Your task to perform on an android device: change notification settings in the gmail app Image 0: 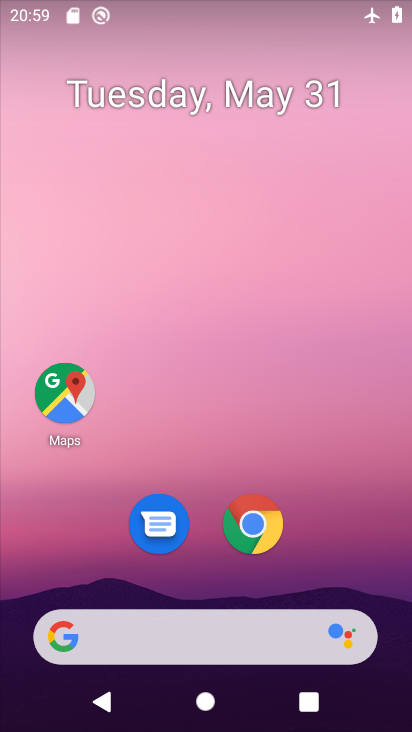
Step 0: drag from (329, 578) to (325, 0)
Your task to perform on an android device: change notification settings in the gmail app Image 1: 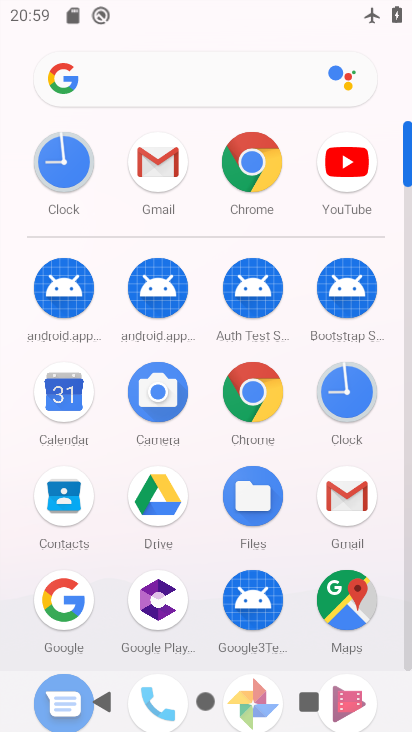
Step 1: click (161, 153)
Your task to perform on an android device: change notification settings in the gmail app Image 2: 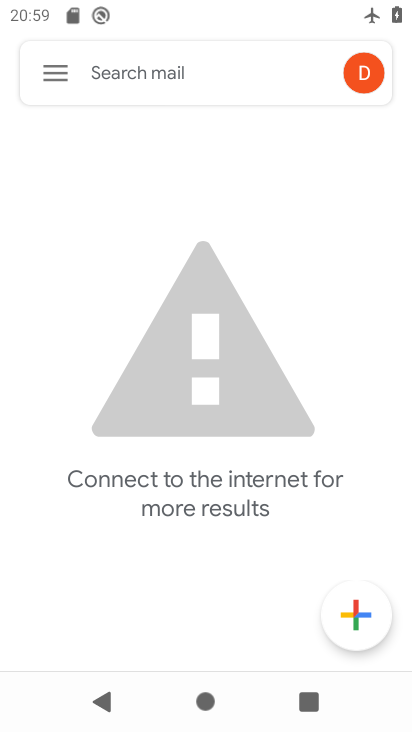
Step 2: click (52, 70)
Your task to perform on an android device: change notification settings in the gmail app Image 3: 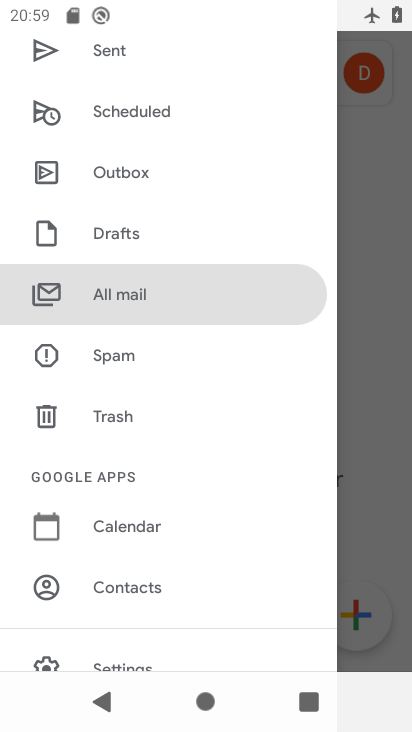
Step 3: drag from (185, 577) to (213, 325)
Your task to perform on an android device: change notification settings in the gmail app Image 4: 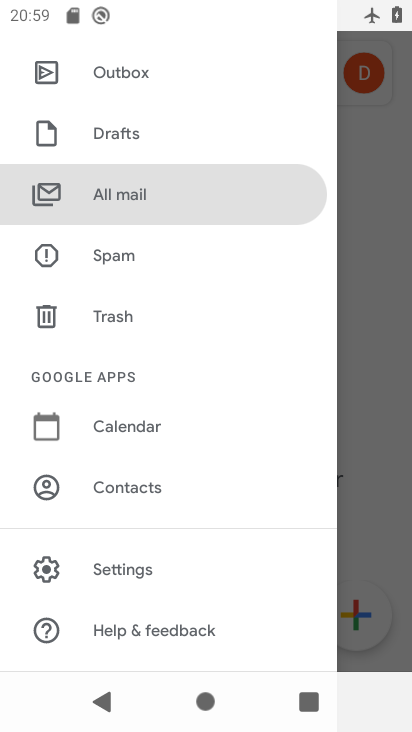
Step 4: click (155, 567)
Your task to perform on an android device: change notification settings in the gmail app Image 5: 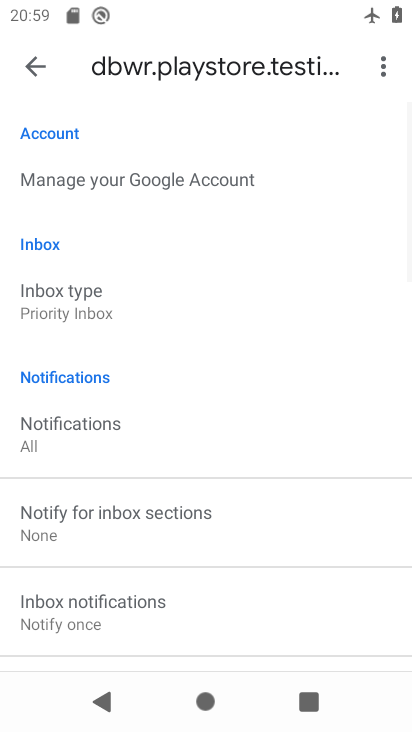
Step 5: drag from (227, 401) to (259, 123)
Your task to perform on an android device: change notification settings in the gmail app Image 6: 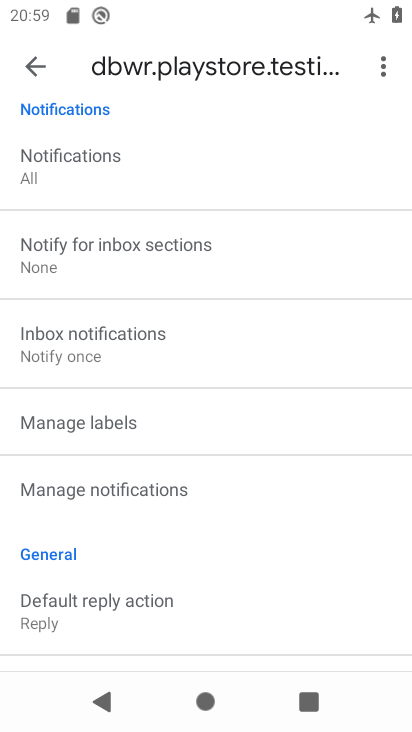
Step 6: click (258, 487)
Your task to perform on an android device: change notification settings in the gmail app Image 7: 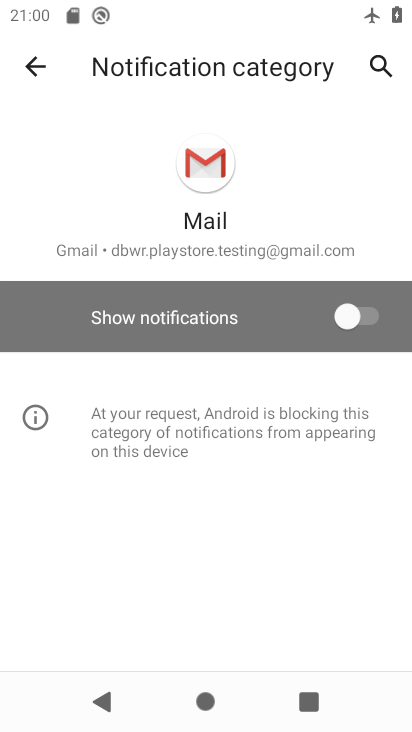
Step 7: click (361, 314)
Your task to perform on an android device: change notification settings in the gmail app Image 8: 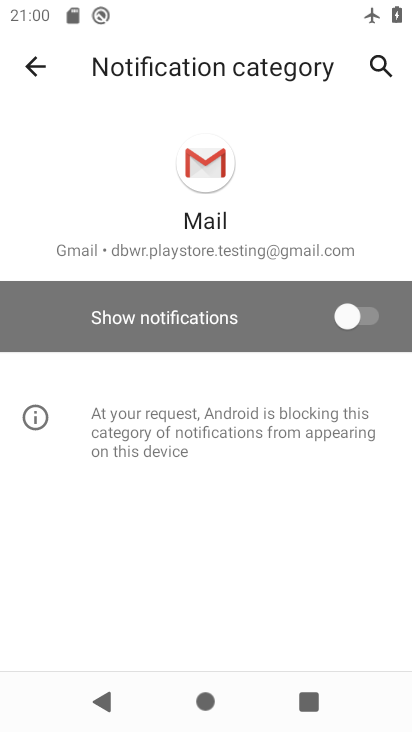
Step 8: click (365, 312)
Your task to perform on an android device: change notification settings in the gmail app Image 9: 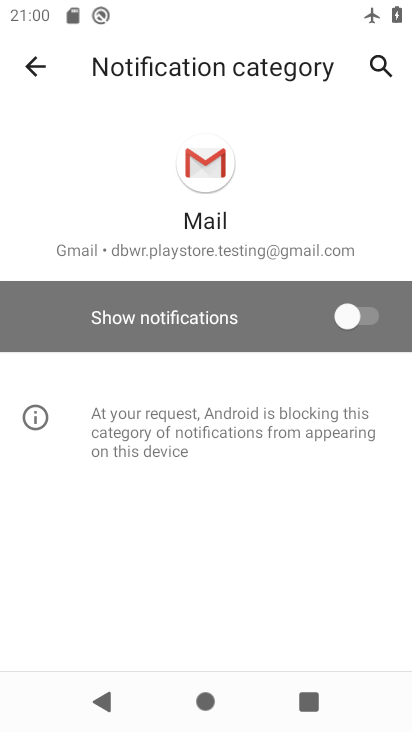
Step 9: click (38, 59)
Your task to perform on an android device: change notification settings in the gmail app Image 10: 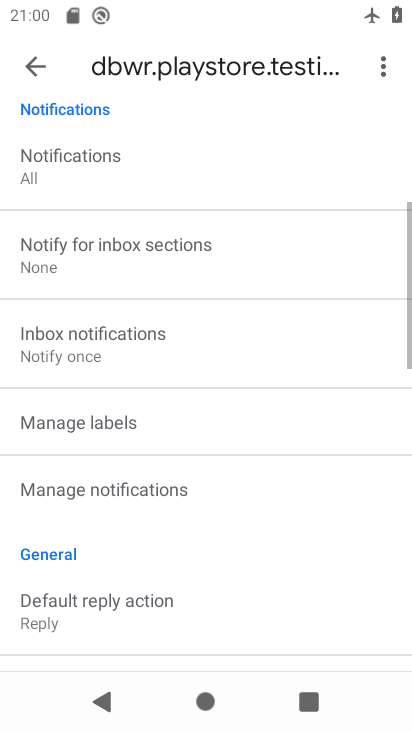
Step 10: click (38, 59)
Your task to perform on an android device: change notification settings in the gmail app Image 11: 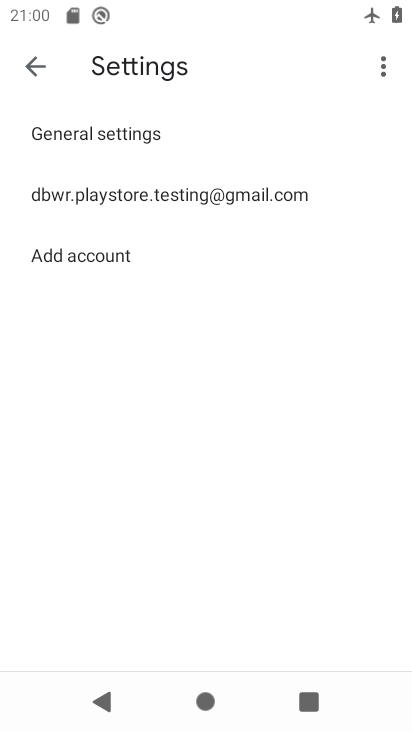
Step 11: click (89, 139)
Your task to perform on an android device: change notification settings in the gmail app Image 12: 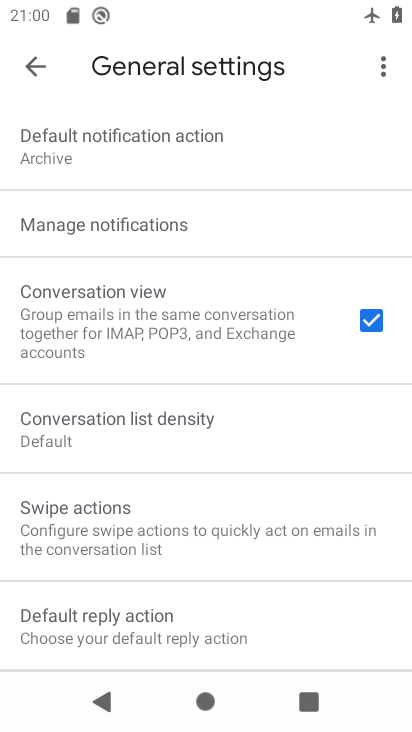
Step 12: click (151, 215)
Your task to perform on an android device: change notification settings in the gmail app Image 13: 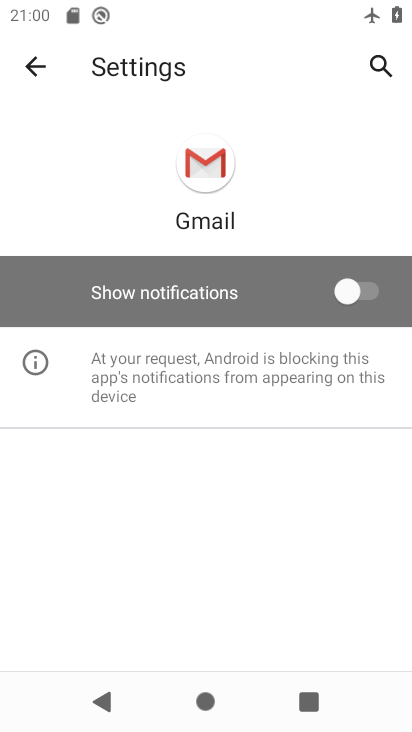
Step 13: click (351, 285)
Your task to perform on an android device: change notification settings in the gmail app Image 14: 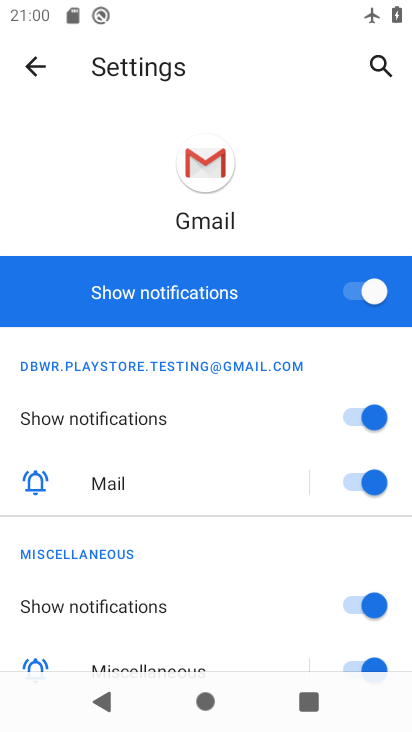
Step 14: task complete